Your task to perform on an android device: turn off airplane mode Image 0: 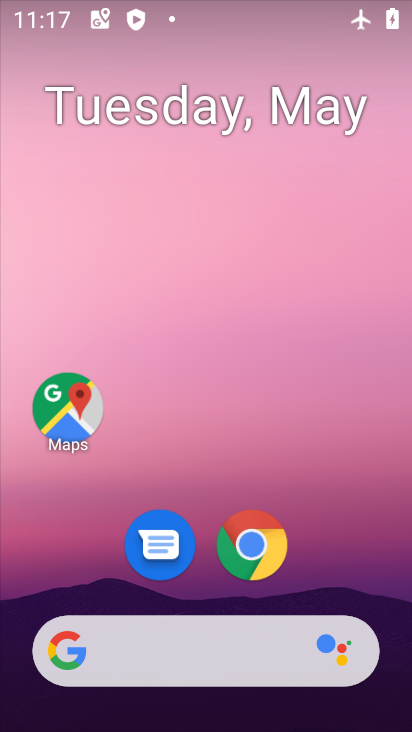
Step 0: drag from (216, 523) to (216, 329)
Your task to perform on an android device: turn off airplane mode Image 1: 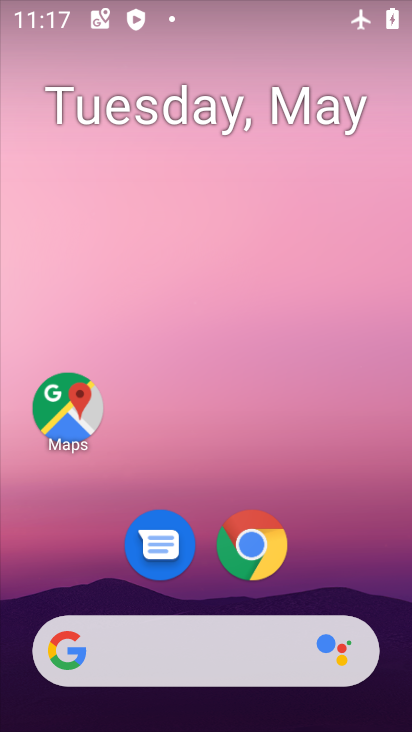
Step 1: drag from (239, 647) to (225, 458)
Your task to perform on an android device: turn off airplane mode Image 2: 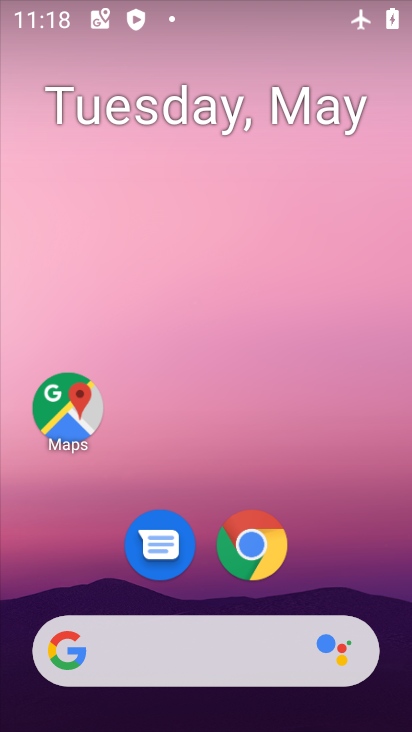
Step 2: drag from (235, 644) to (214, 178)
Your task to perform on an android device: turn off airplane mode Image 3: 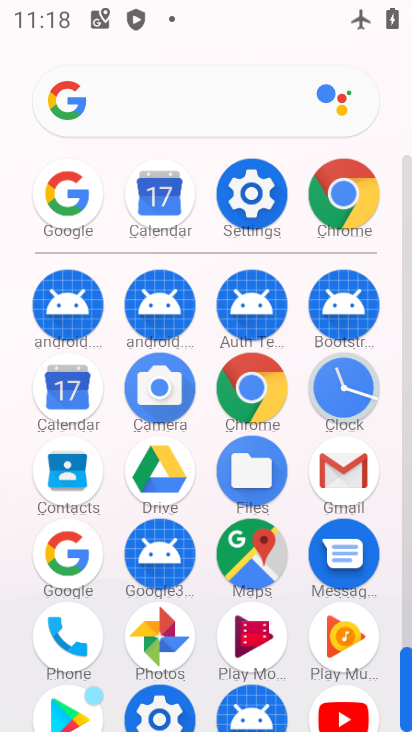
Step 3: drag from (260, 204) to (248, 156)
Your task to perform on an android device: turn off airplane mode Image 4: 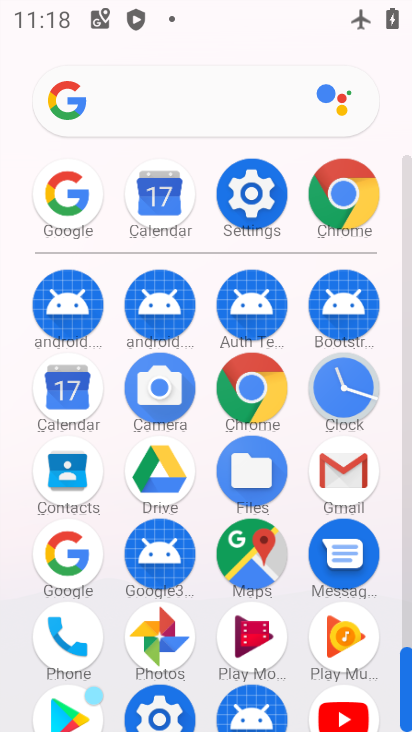
Step 4: click (266, 221)
Your task to perform on an android device: turn off airplane mode Image 5: 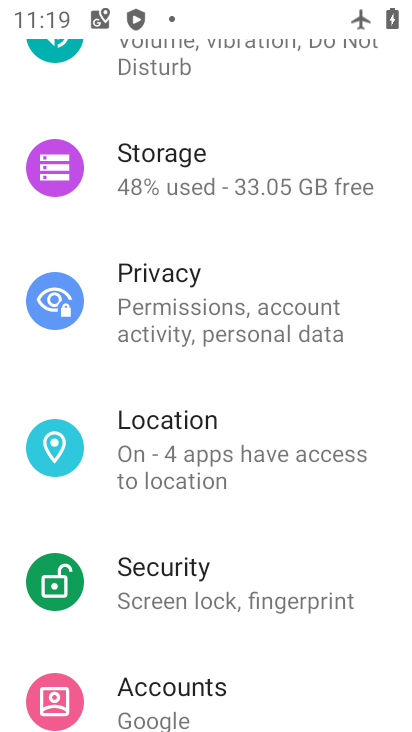
Step 5: drag from (194, 544) to (207, 692)
Your task to perform on an android device: turn off airplane mode Image 6: 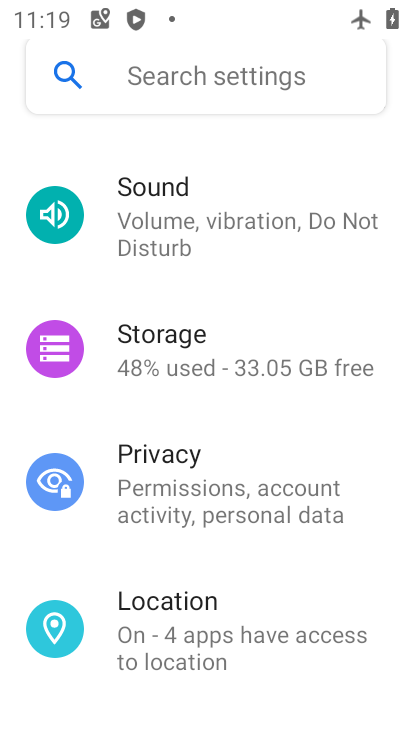
Step 6: drag from (216, 275) to (258, 727)
Your task to perform on an android device: turn off airplane mode Image 7: 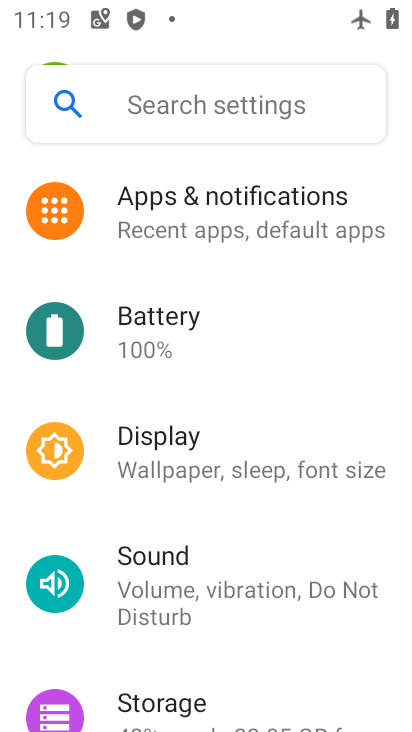
Step 7: drag from (305, 241) to (204, 729)
Your task to perform on an android device: turn off airplane mode Image 8: 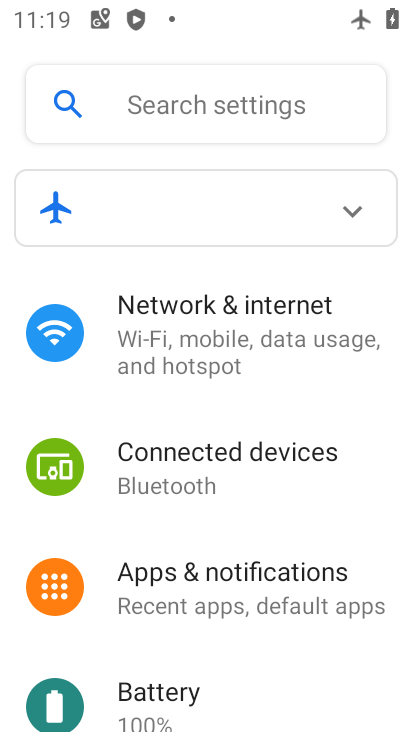
Step 8: click (249, 368)
Your task to perform on an android device: turn off airplane mode Image 9: 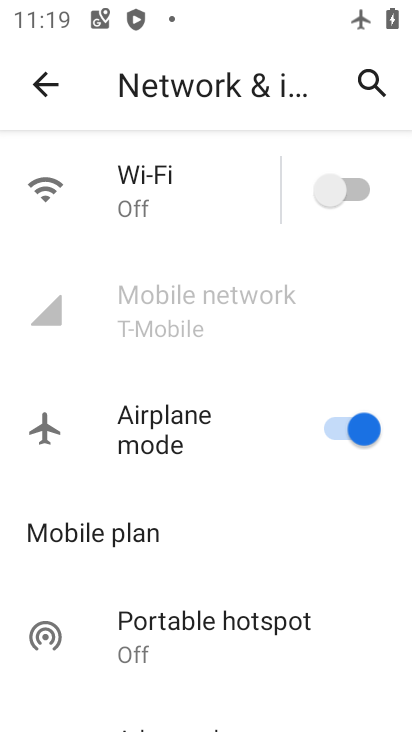
Step 9: click (340, 424)
Your task to perform on an android device: turn off airplane mode Image 10: 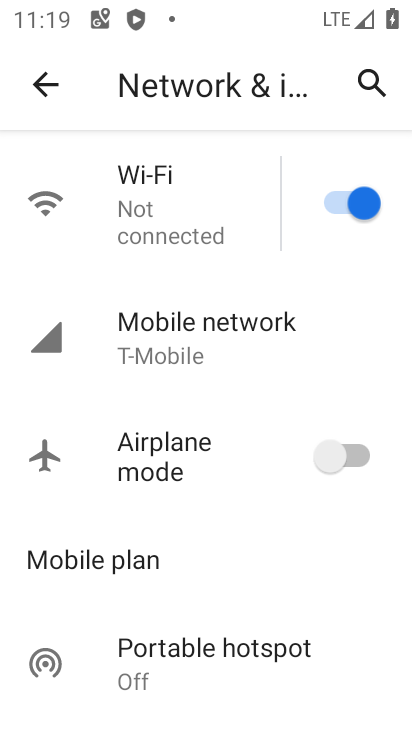
Step 10: task complete